Your task to perform on an android device: open app "Messenger Lite" Image 0: 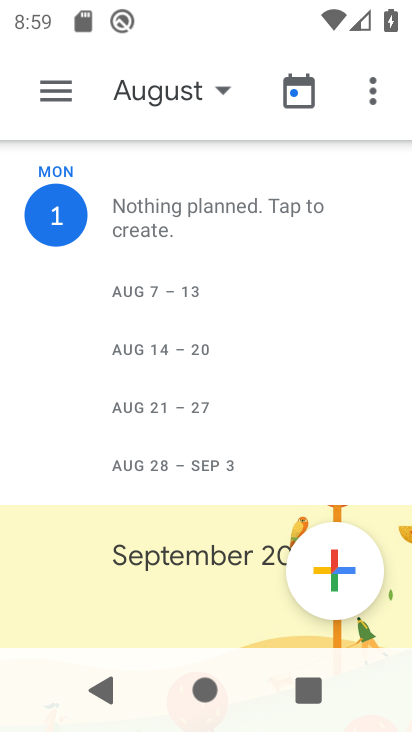
Step 0: press home button
Your task to perform on an android device: open app "Messenger Lite" Image 1: 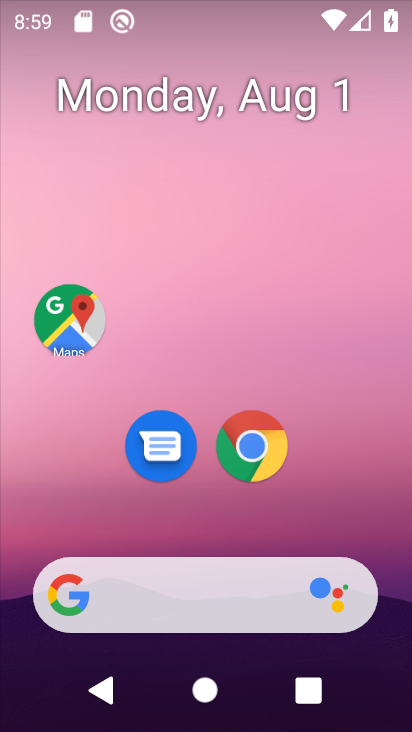
Step 1: drag from (220, 530) to (249, 130)
Your task to perform on an android device: open app "Messenger Lite" Image 2: 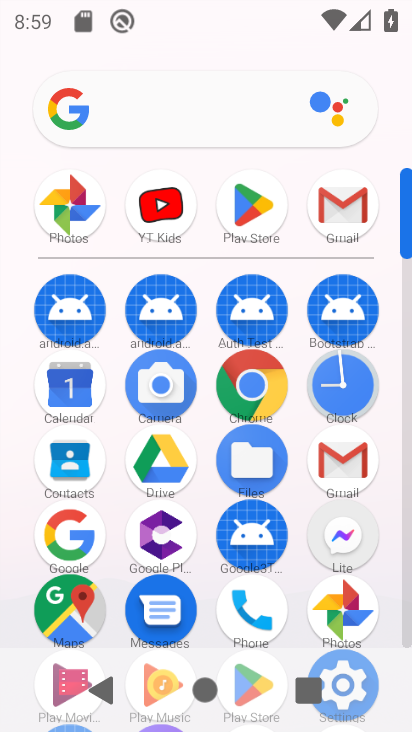
Step 2: click (258, 218)
Your task to perform on an android device: open app "Messenger Lite" Image 3: 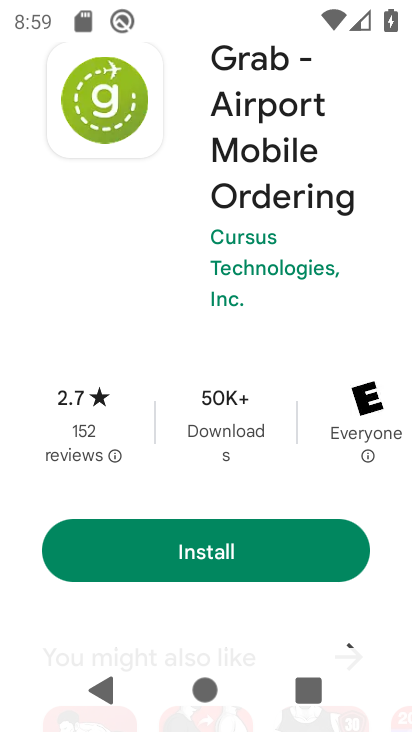
Step 3: press back button
Your task to perform on an android device: open app "Messenger Lite" Image 4: 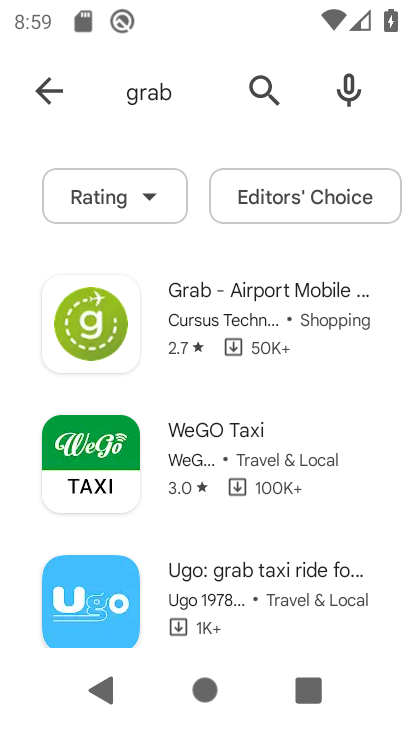
Step 4: click (265, 80)
Your task to perform on an android device: open app "Messenger Lite" Image 5: 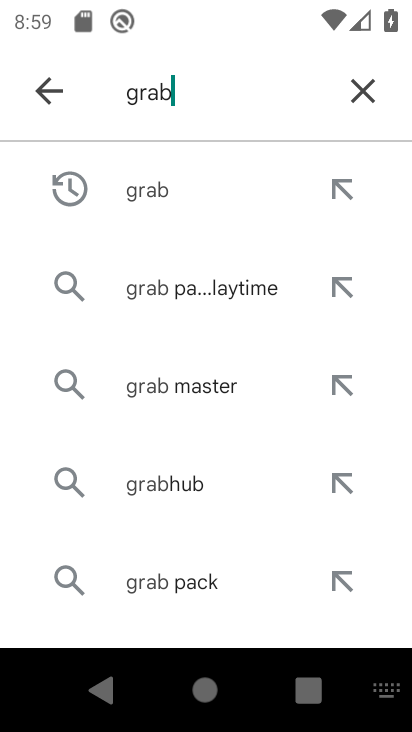
Step 5: click (361, 84)
Your task to perform on an android device: open app "Messenger Lite" Image 6: 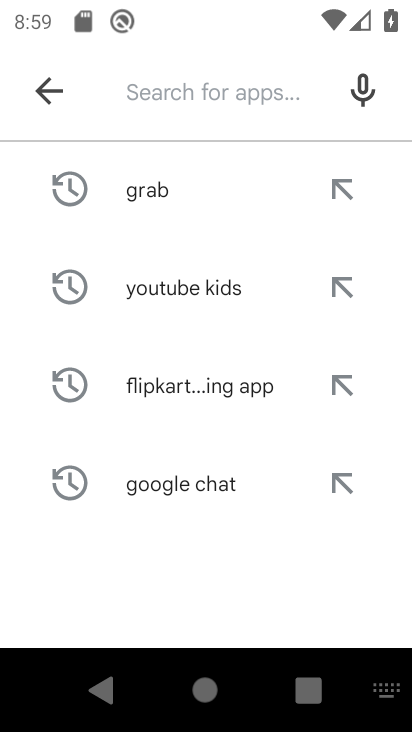
Step 6: type "Messenger Lite"
Your task to perform on an android device: open app "Messenger Lite" Image 7: 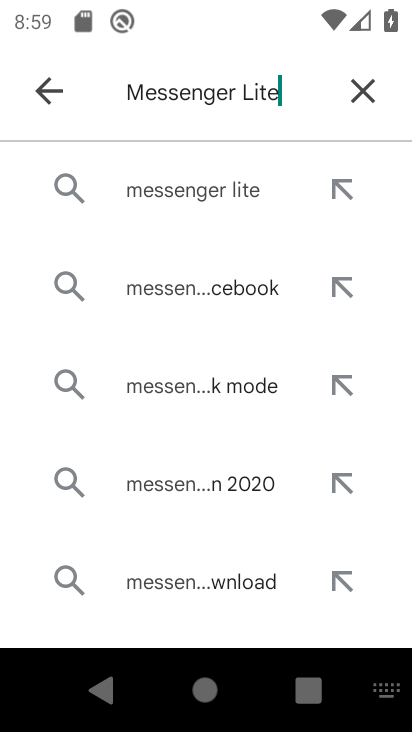
Step 7: type ""
Your task to perform on an android device: open app "Messenger Lite" Image 8: 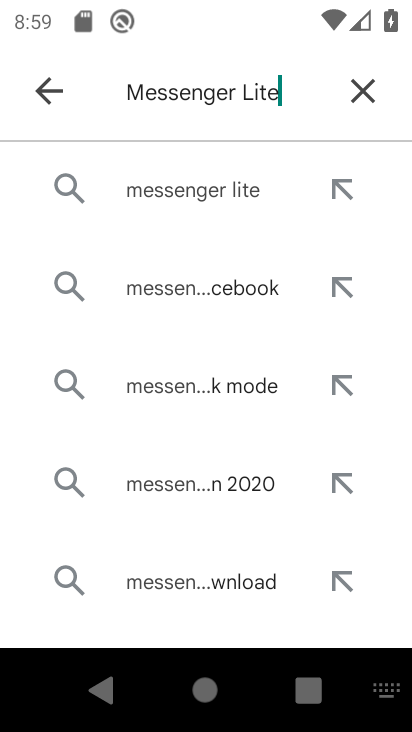
Step 8: click (221, 197)
Your task to perform on an android device: open app "Messenger Lite" Image 9: 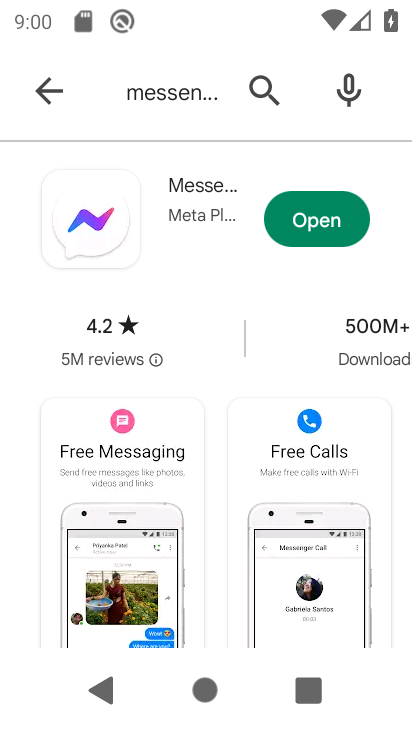
Step 9: click (343, 218)
Your task to perform on an android device: open app "Messenger Lite" Image 10: 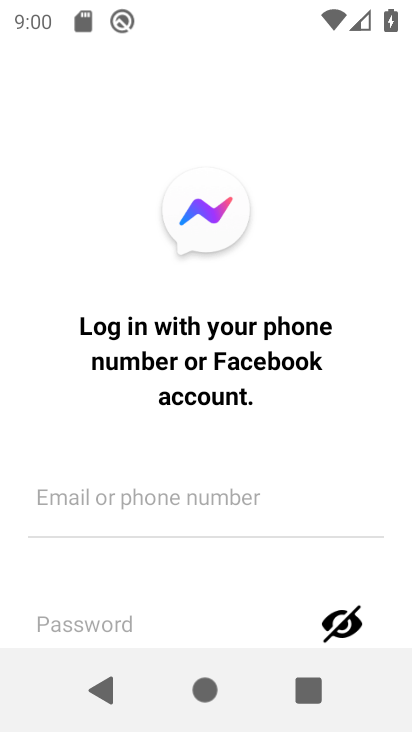
Step 10: task complete